Your task to perform on an android device: add a contact in the contacts app Image 0: 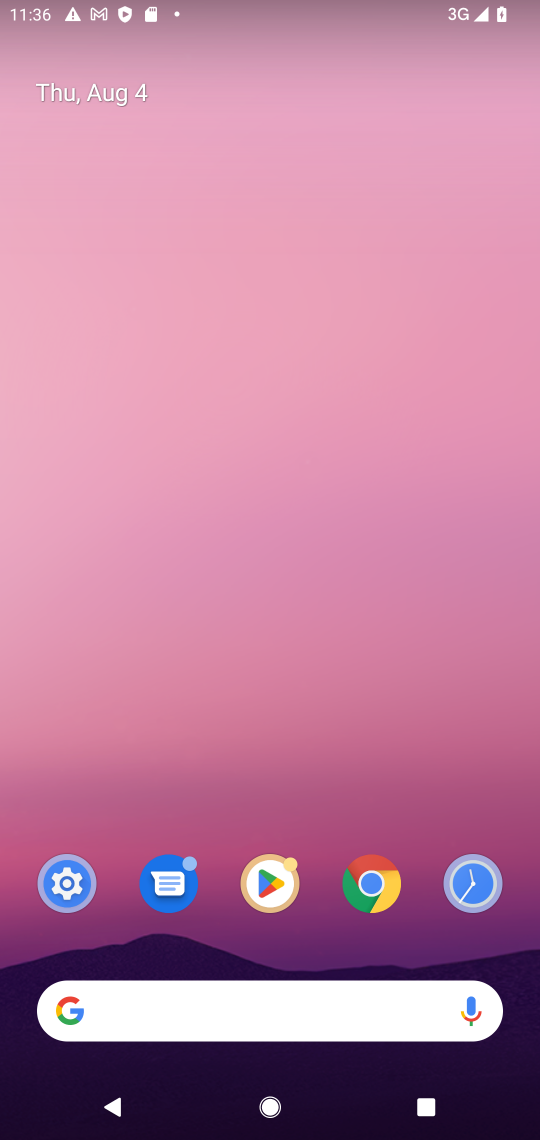
Step 0: drag from (190, 923) to (258, 292)
Your task to perform on an android device: add a contact in the contacts app Image 1: 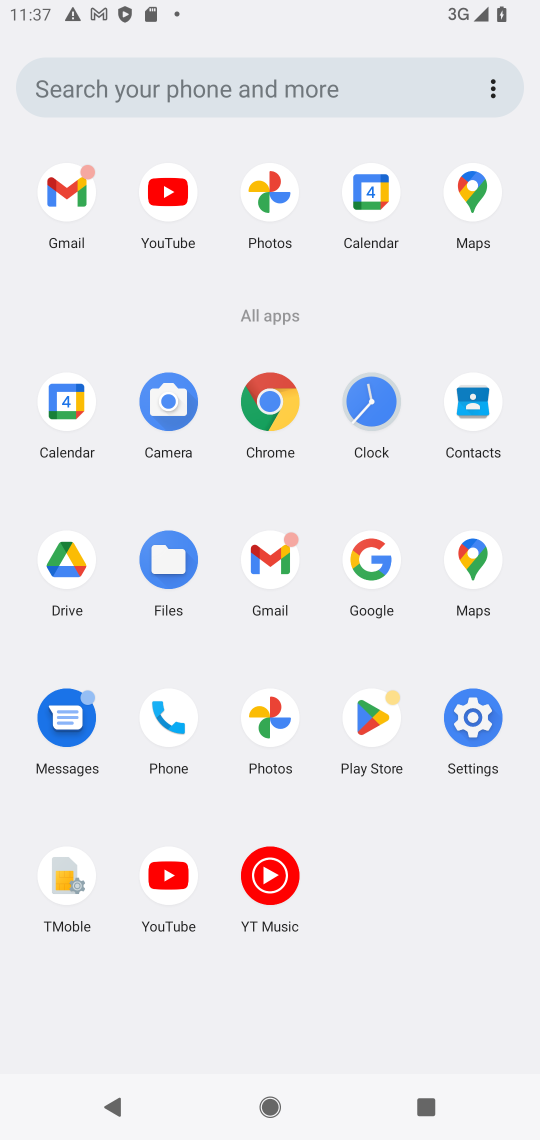
Step 1: drag from (315, 810) to (340, 468)
Your task to perform on an android device: add a contact in the contacts app Image 2: 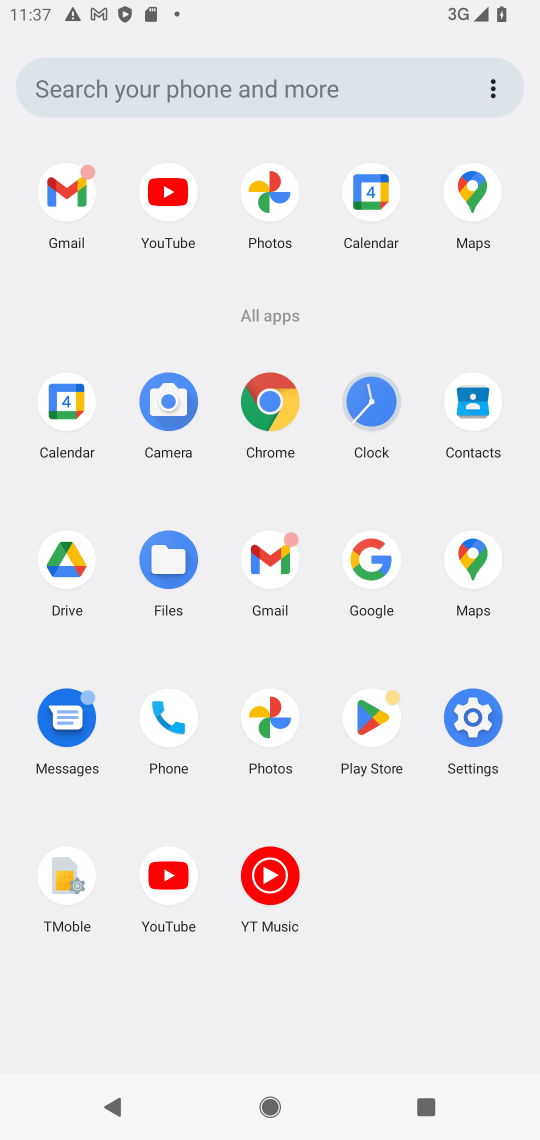
Step 2: click (445, 411)
Your task to perform on an android device: add a contact in the contacts app Image 3: 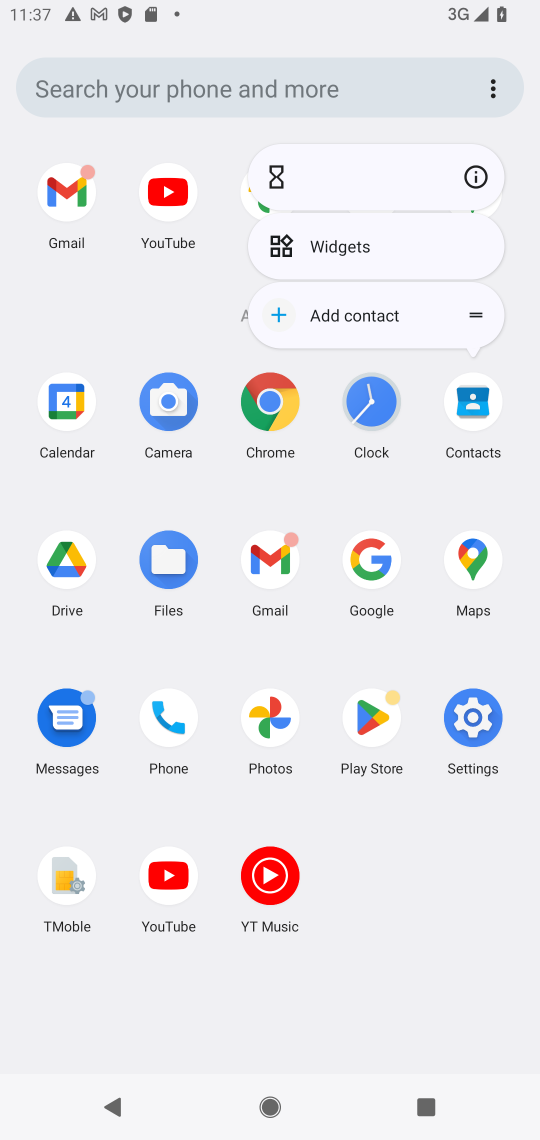
Step 3: click (466, 183)
Your task to perform on an android device: add a contact in the contacts app Image 4: 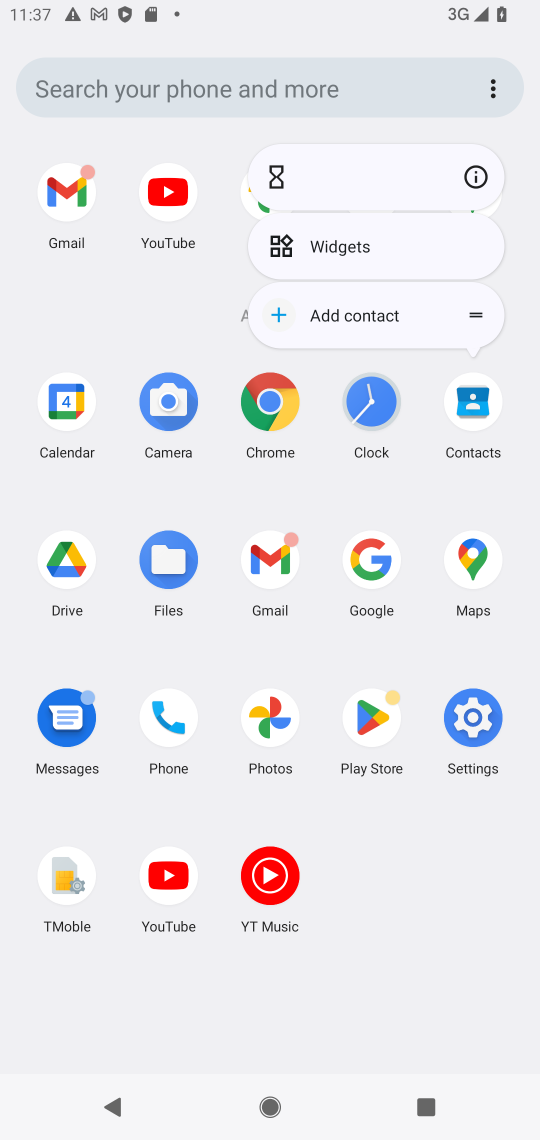
Step 4: click (477, 166)
Your task to perform on an android device: add a contact in the contacts app Image 5: 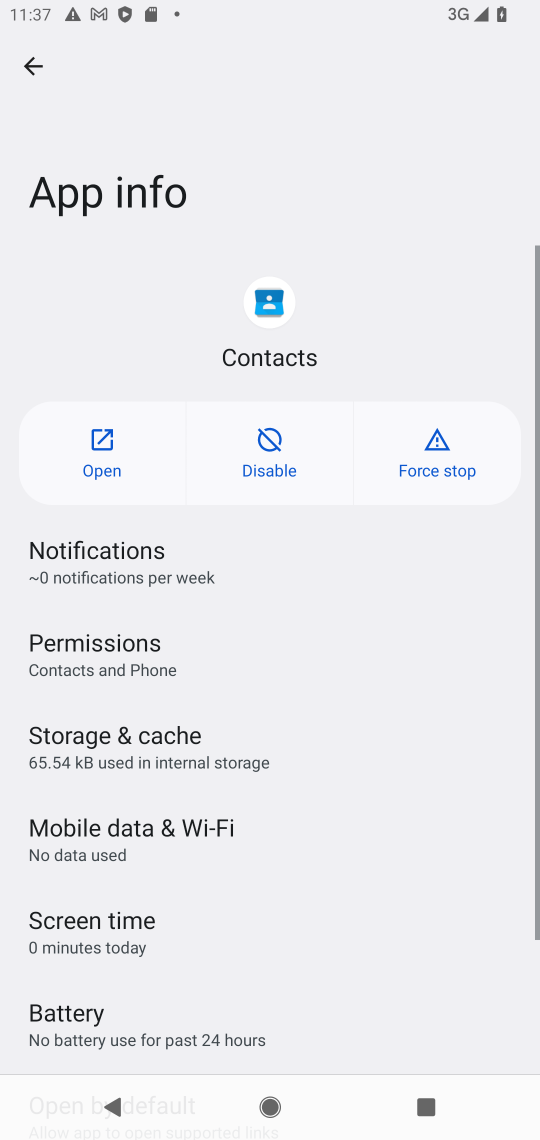
Step 5: click (80, 455)
Your task to perform on an android device: add a contact in the contacts app Image 6: 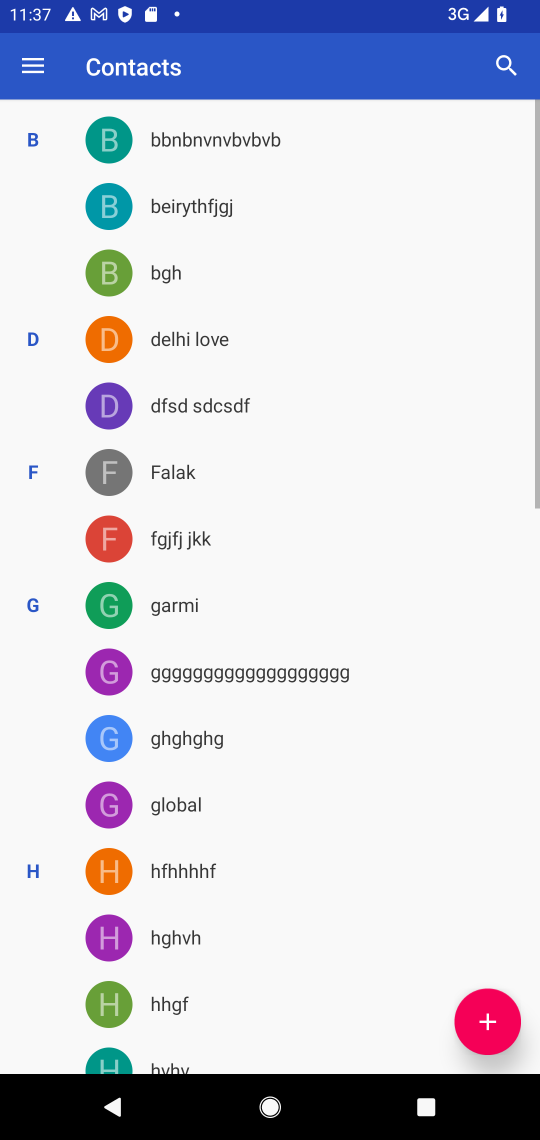
Step 6: drag from (278, 694) to (278, 436)
Your task to perform on an android device: add a contact in the contacts app Image 7: 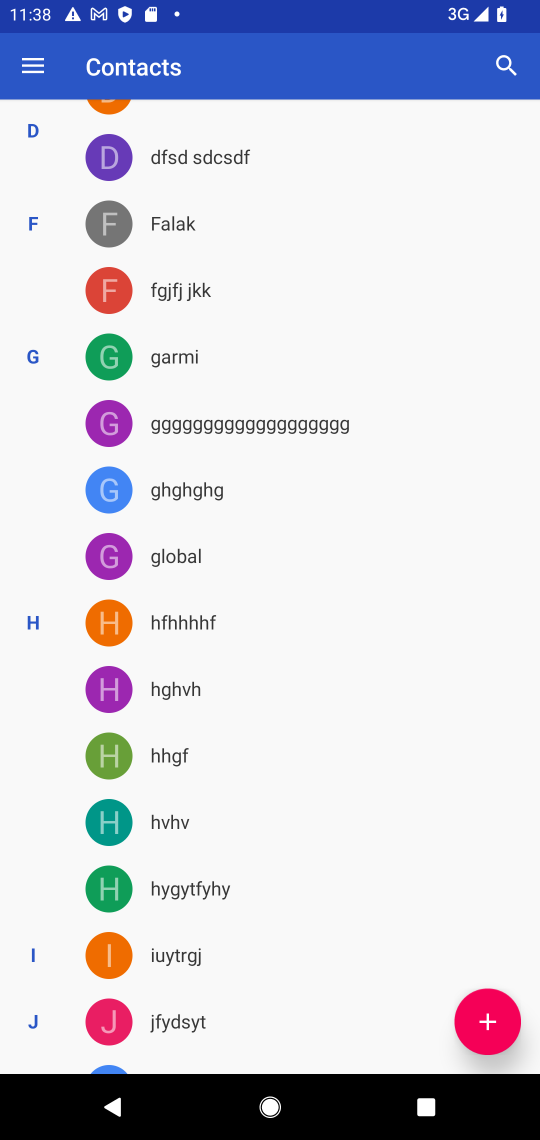
Step 7: drag from (314, 919) to (325, 504)
Your task to perform on an android device: add a contact in the contacts app Image 8: 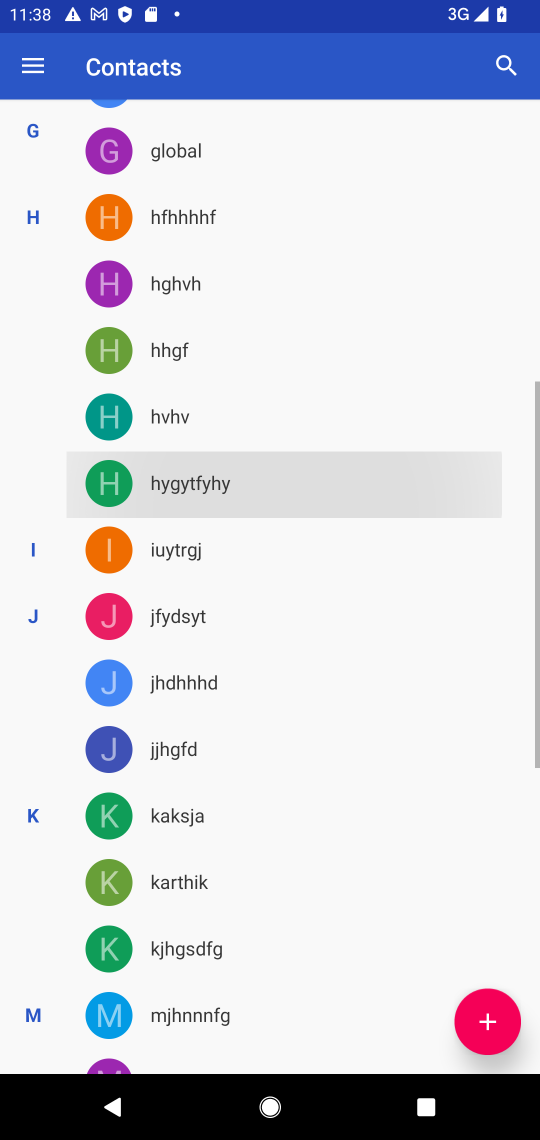
Step 8: drag from (320, 469) to (327, 1110)
Your task to perform on an android device: add a contact in the contacts app Image 9: 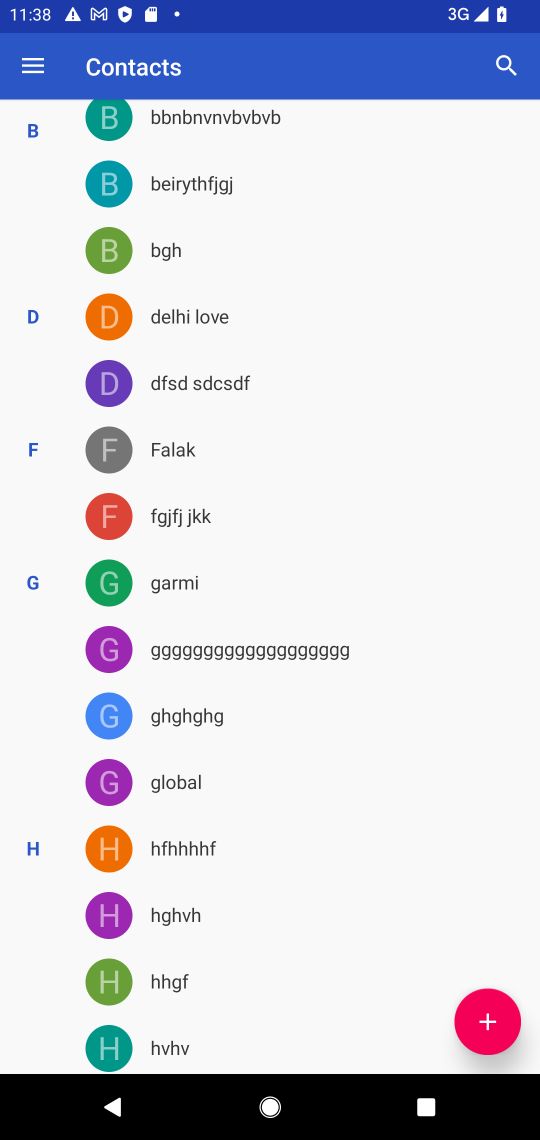
Step 9: drag from (304, 303) to (310, 1088)
Your task to perform on an android device: add a contact in the contacts app Image 10: 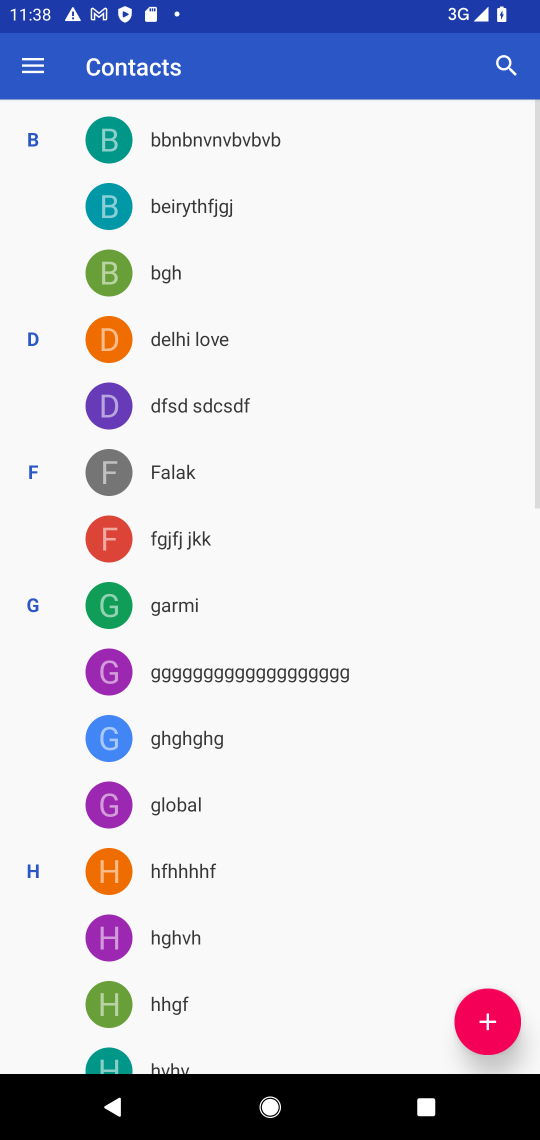
Step 10: drag from (272, 313) to (255, 1081)
Your task to perform on an android device: add a contact in the contacts app Image 11: 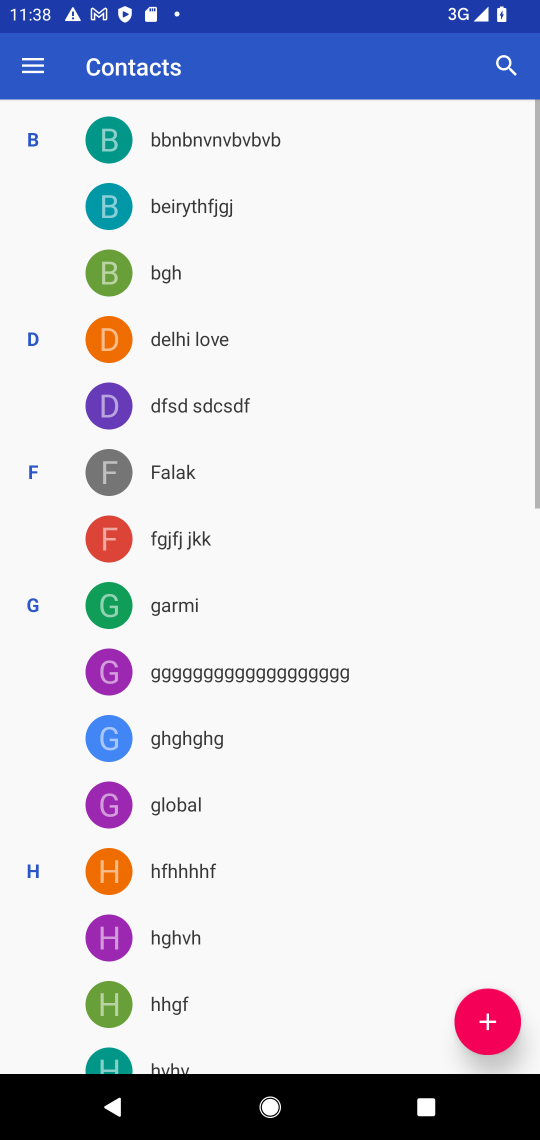
Step 11: click (495, 1016)
Your task to perform on an android device: add a contact in the contacts app Image 12: 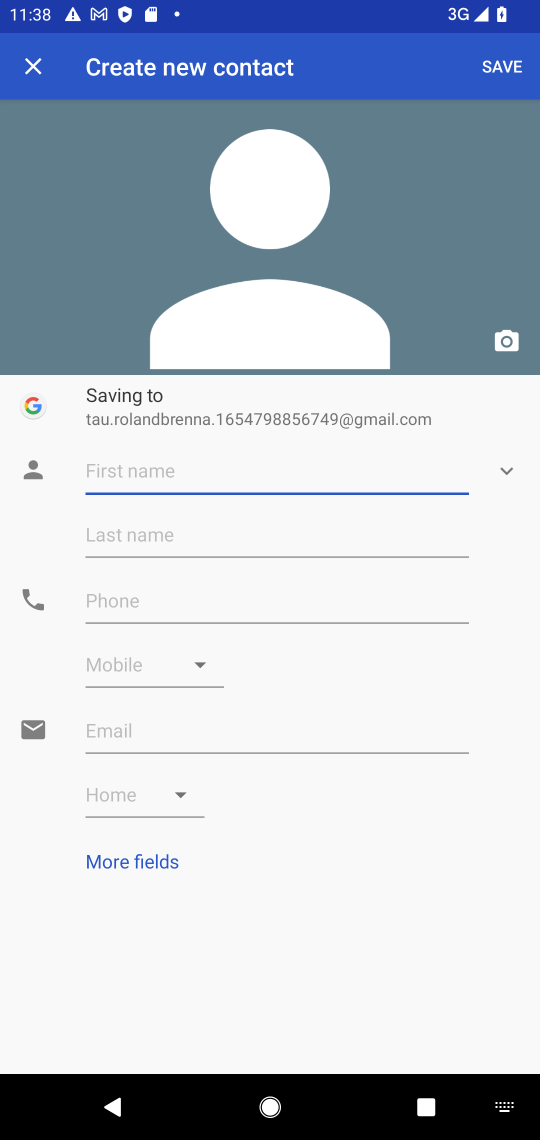
Step 12: type "mkijhnhk"
Your task to perform on an android device: add a contact in the contacts app Image 13: 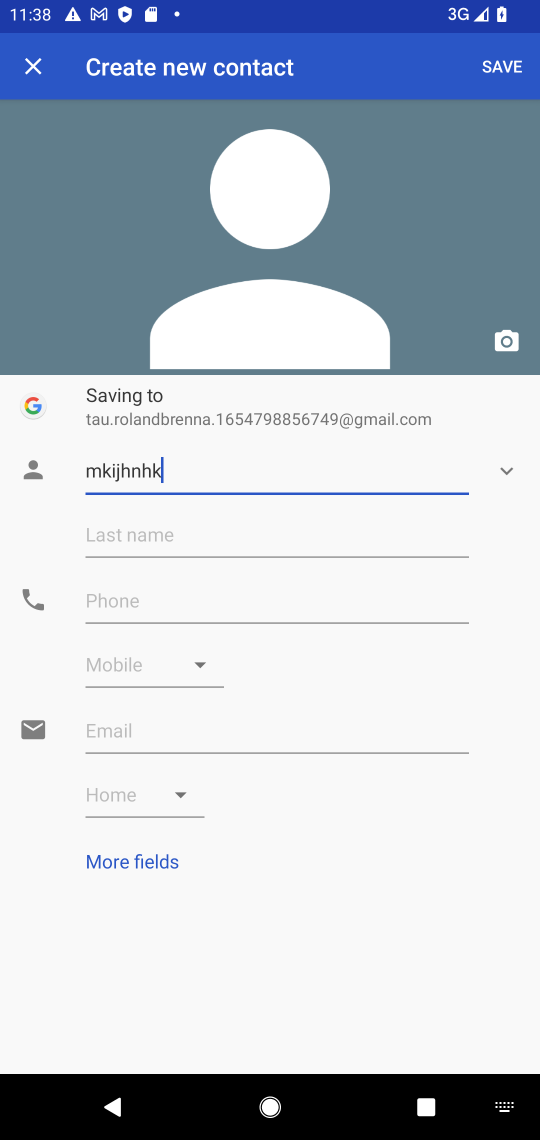
Step 13: click (493, 79)
Your task to perform on an android device: add a contact in the contacts app Image 14: 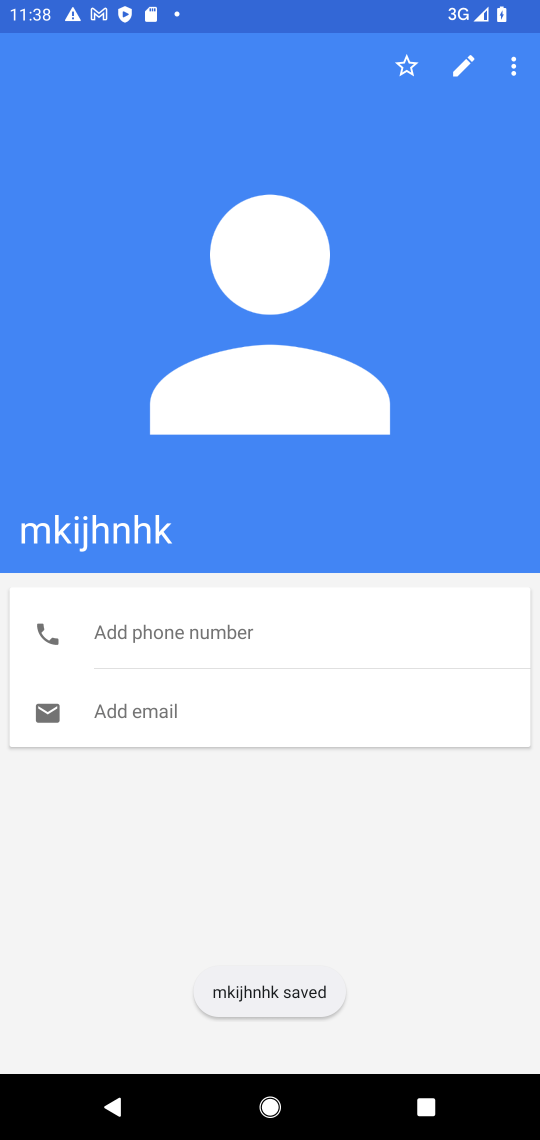
Step 14: task complete